Your task to perform on an android device: Search for the best rated 4K TV on Best Buy. Image 0: 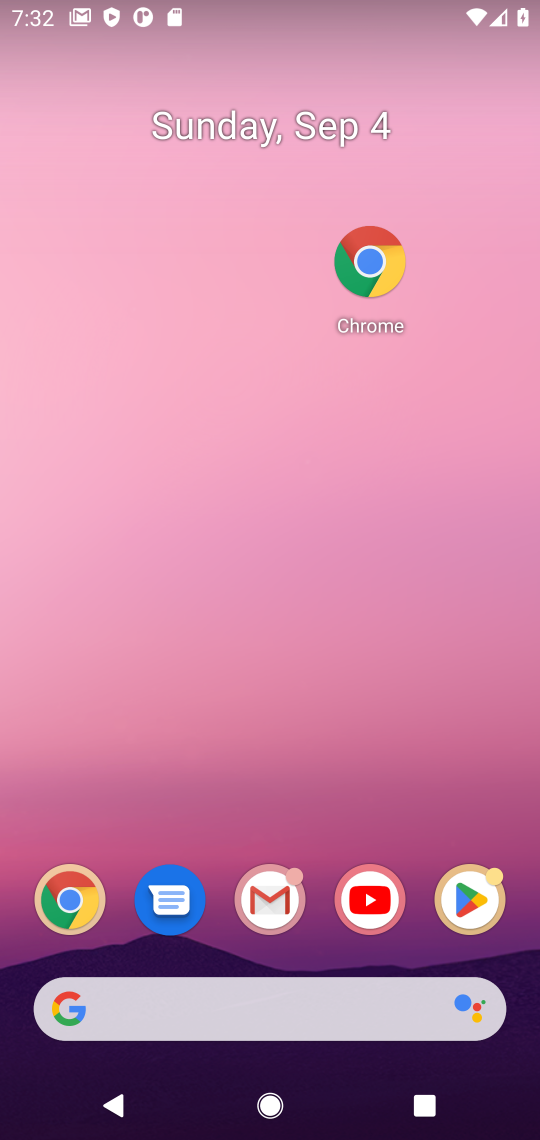
Step 0: click (355, 967)
Your task to perform on an android device: Search for the best rated 4K TV on Best Buy. Image 1: 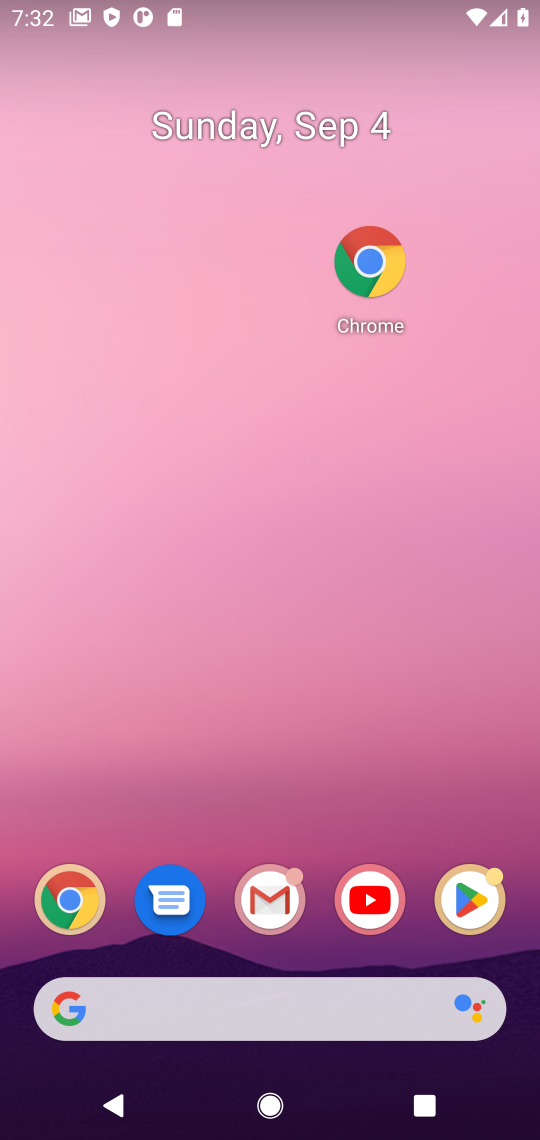
Step 1: drag from (355, 967) to (325, 99)
Your task to perform on an android device: Search for the best rated 4K TV on Best Buy. Image 2: 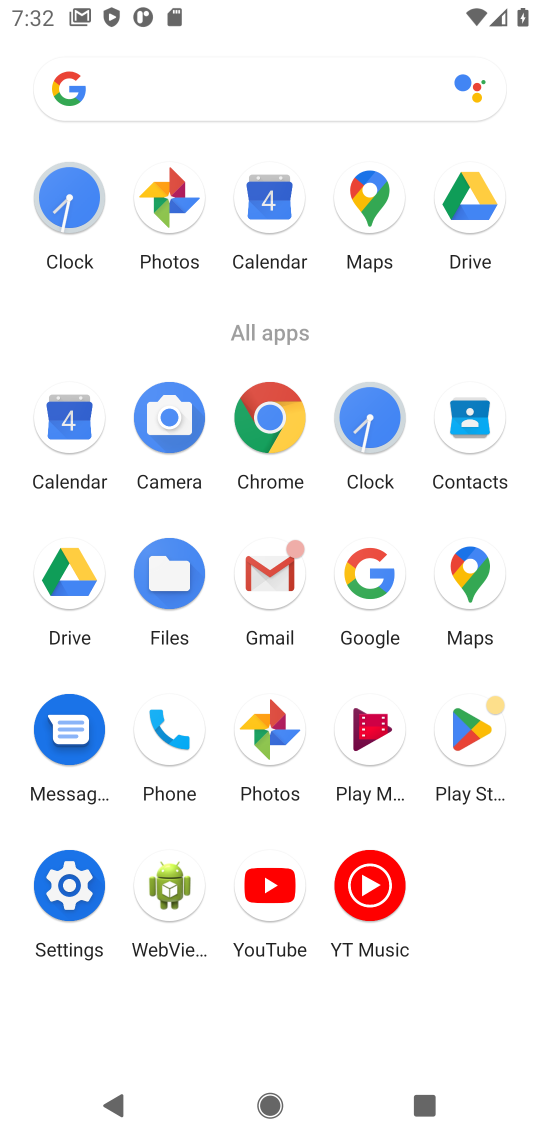
Step 2: click (285, 414)
Your task to perform on an android device: Search for the best rated 4K TV on Best Buy. Image 3: 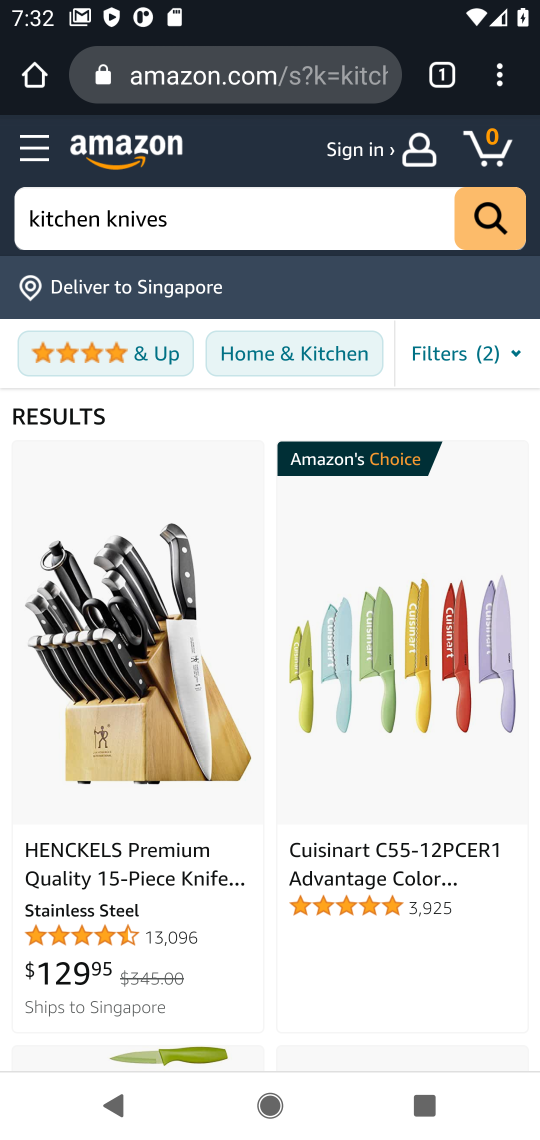
Step 3: click (446, 70)
Your task to perform on an android device: Search for the best rated 4K TV on Best Buy. Image 4: 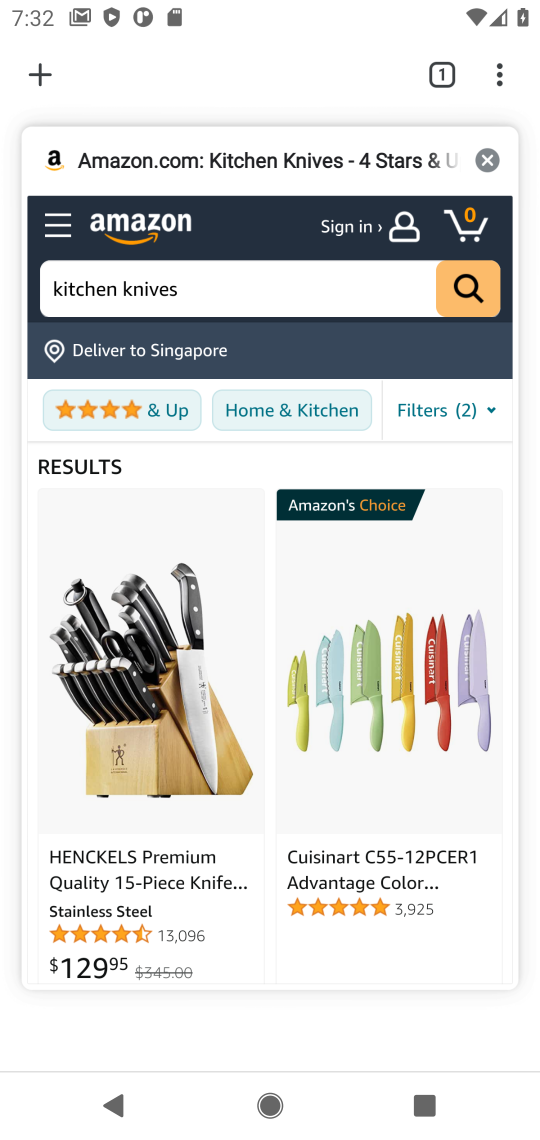
Step 4: click (33, 71)
Your task to perform on an android device: Search for the best rated 4K TV on Best Buy. Image 5: 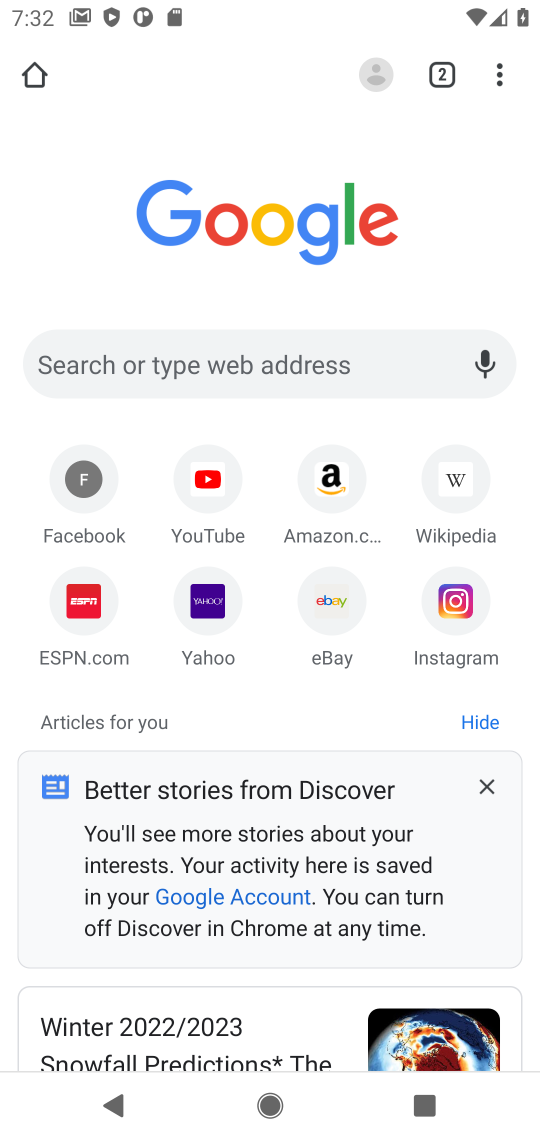
Step 5: click (164, 374)
Your task to perform on an android device: Search for the best rated 4K TV on Best Buy. Image 6: 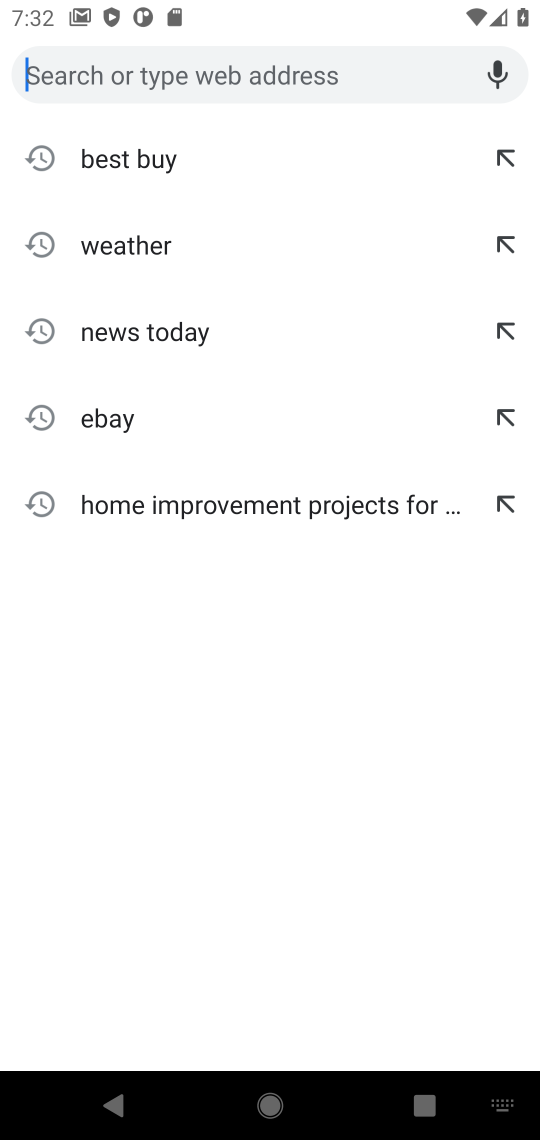
Step 6: click (123, 170)
Your task to perform on an android device: Search for the best rated 4K TV on Best Buy. Image 7: 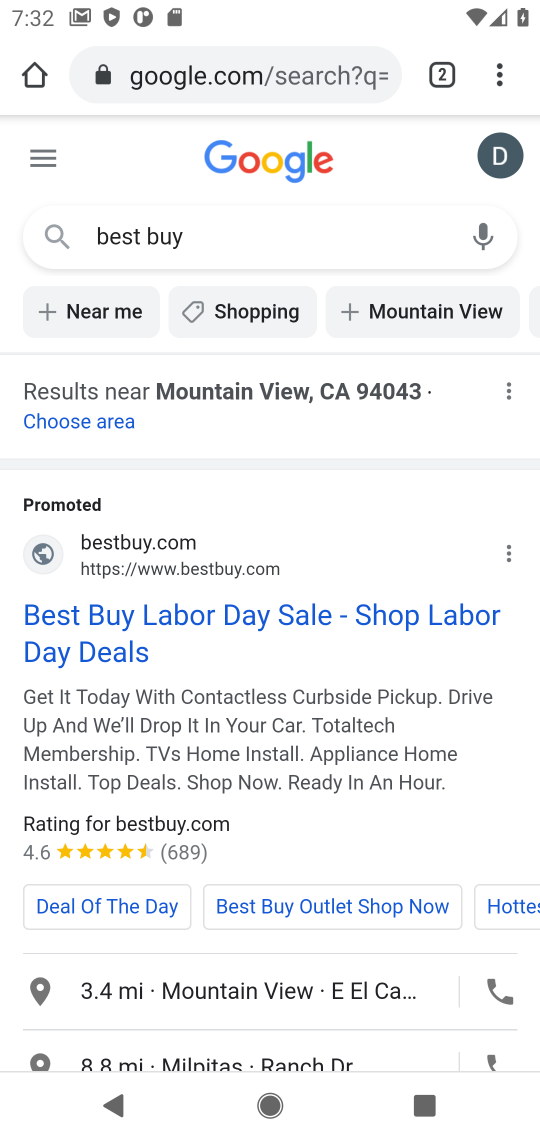
Step 7: click (72, 609)
Your task to perform on an android device: Search for the best rated 4K TV on Best Buy. Image 8: 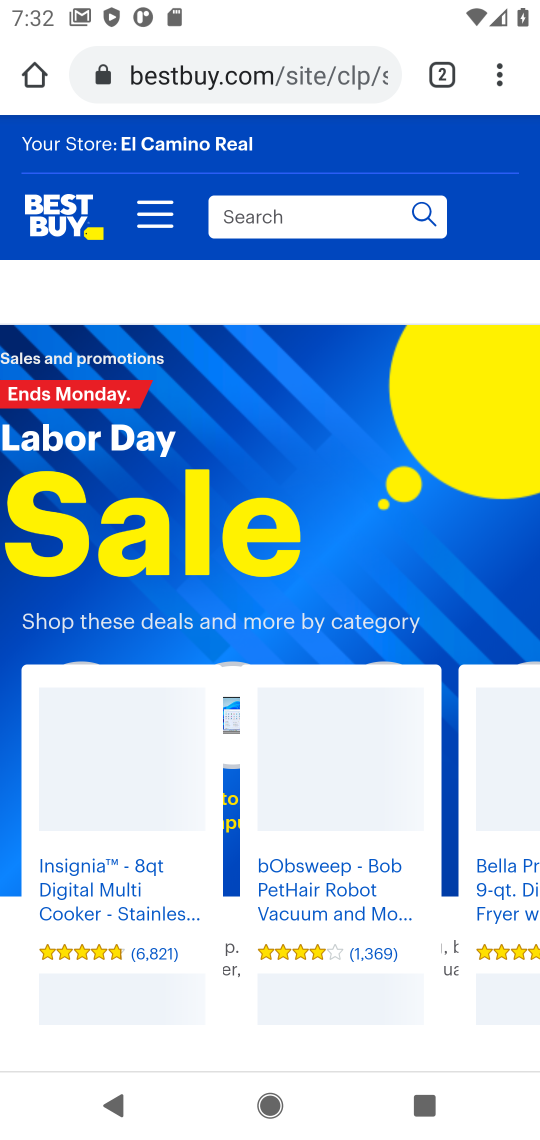
Step 8: click (290, 218)
Your task to perform on an android device: Search for the best rated 4K TV on Best Buy. Image 9: 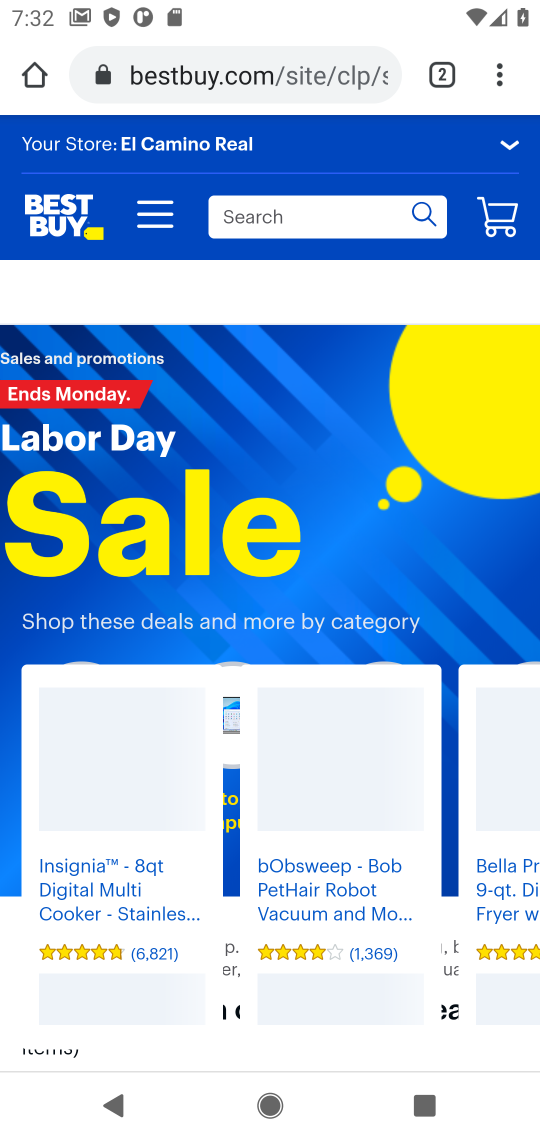
Step 9: click (290, 218)
Your task to perform on an android device: Search for the best rated 4K TV on Best Buy. Image 10: 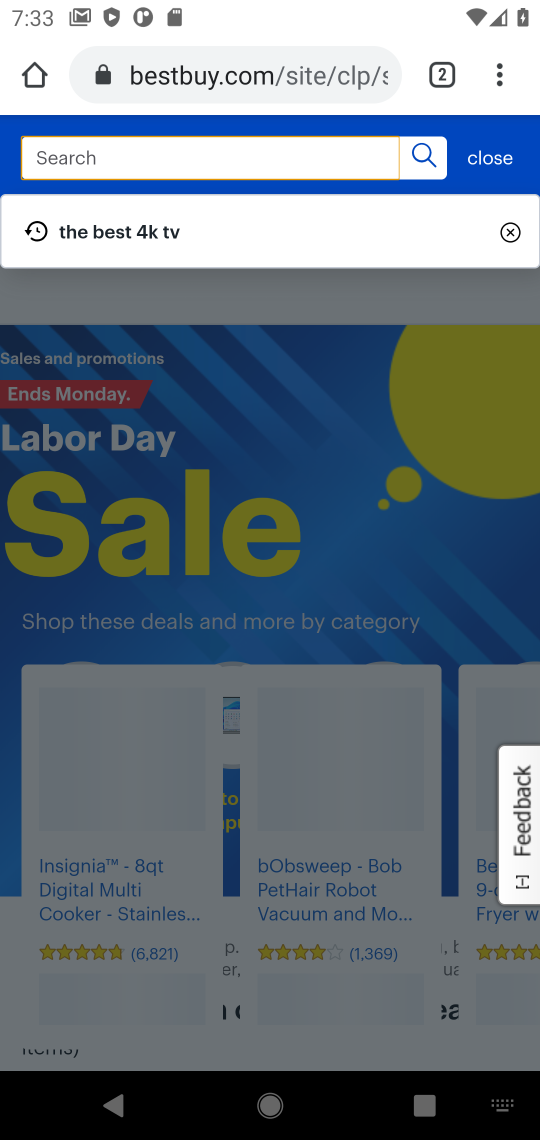
Step 10: type " the best rated 4K TV"
Your task to perform on an android device: Search for the best rated 4K TV on Best Buy. Image 11: 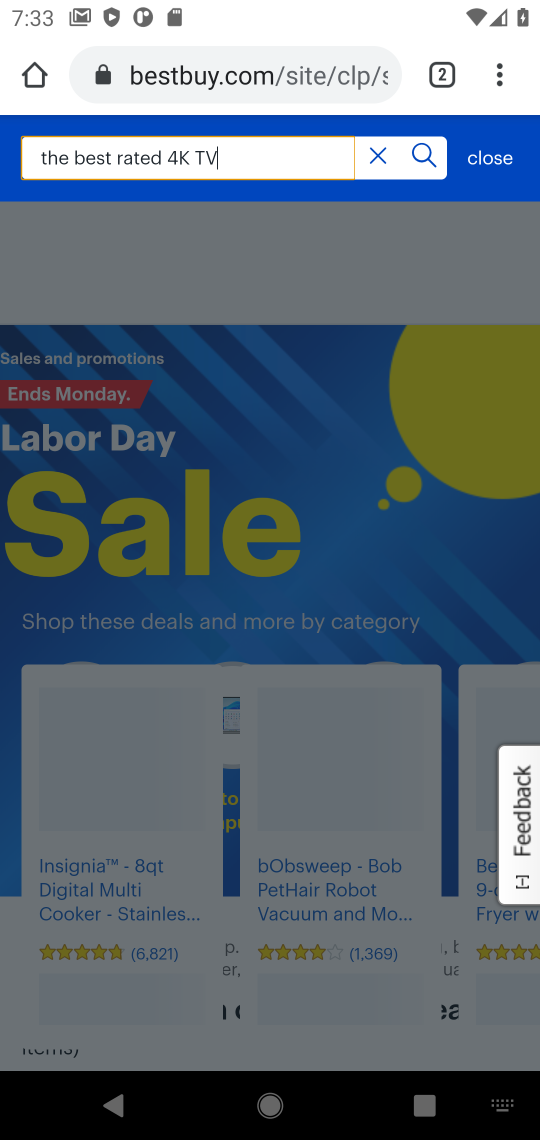
Step 11: click (424, 163)
Your task to perform on an android device: Search for the best rated 4K TV on Best Buy. Image 12: 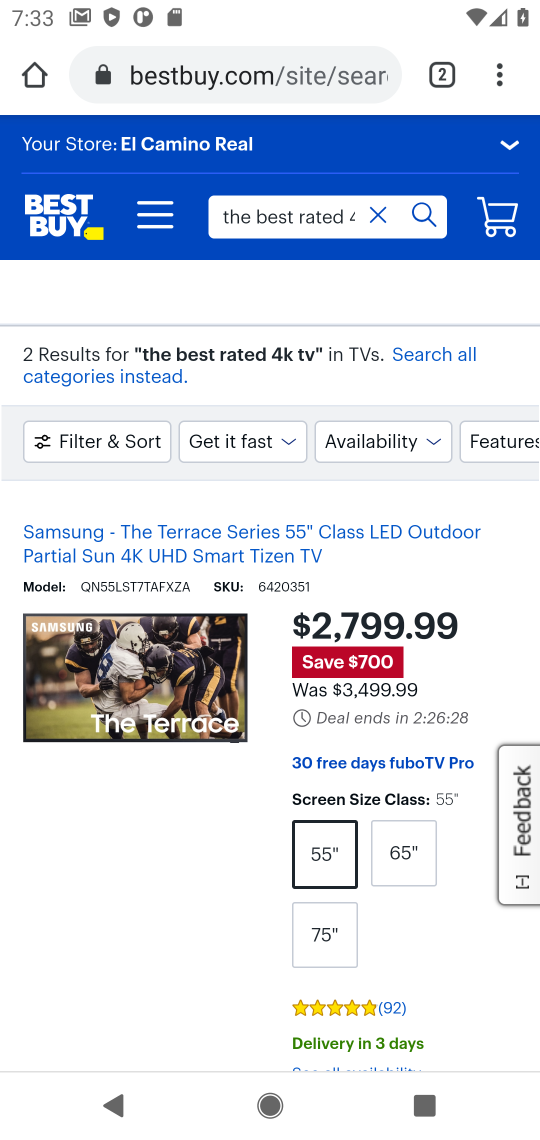
Step 12: task complete